Your task to perform on an android device: Open Yahoo.com Image 0: 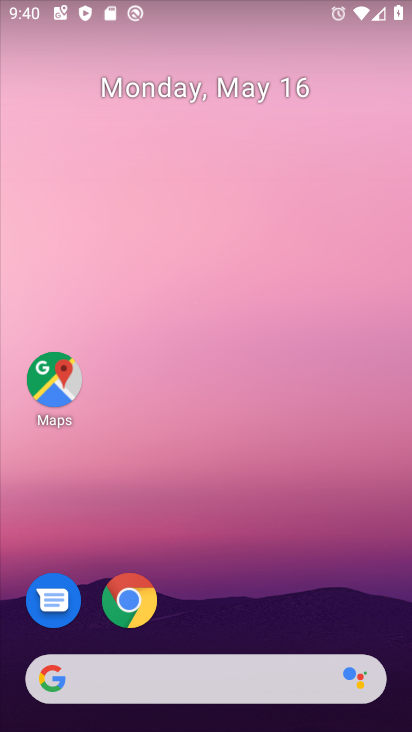
Step 0: drag from (181, 647) to (244, 150)
Your task to perform on an android device: Open Yahoo.com Image 1: 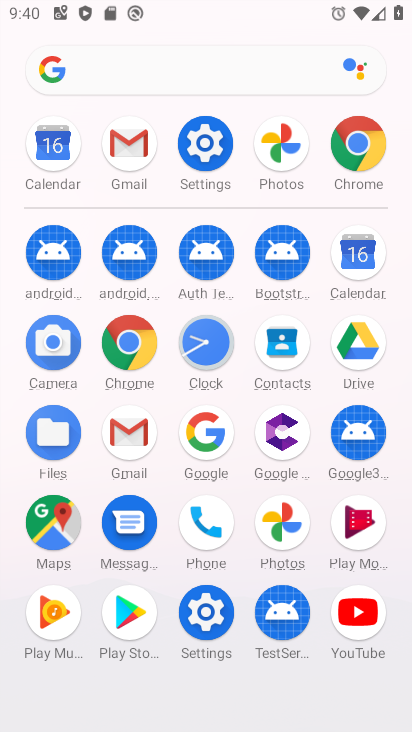
Step 1: click (182, 73)
Your task to perform on an android device: Open Yahoo.com Image 2: 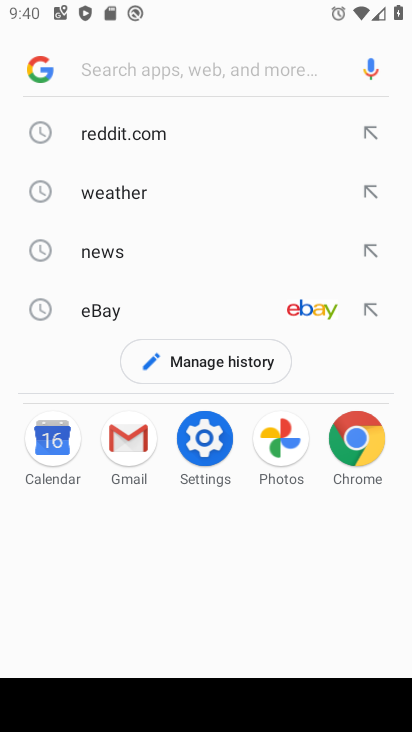
Step 2: type "yahoo.com"
Your task to perform on an android device: Open Yahoo.com Image 3: 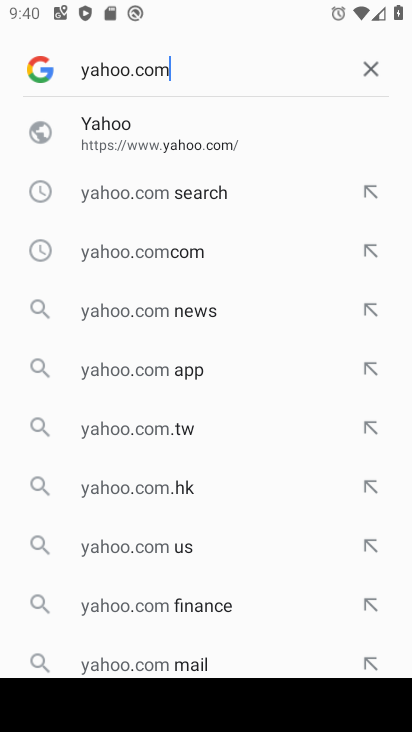
Step 3: click (178, 127)
Your task to perform on an android device: Open Yahoo.com Image 4: 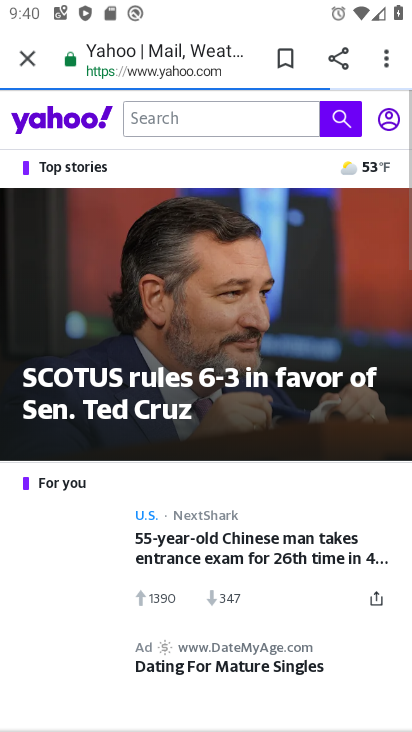
Step 4: drag from (199, 610) to (280, 283)
Your task to perform on an android device: Open Yahoo.com Image 5: 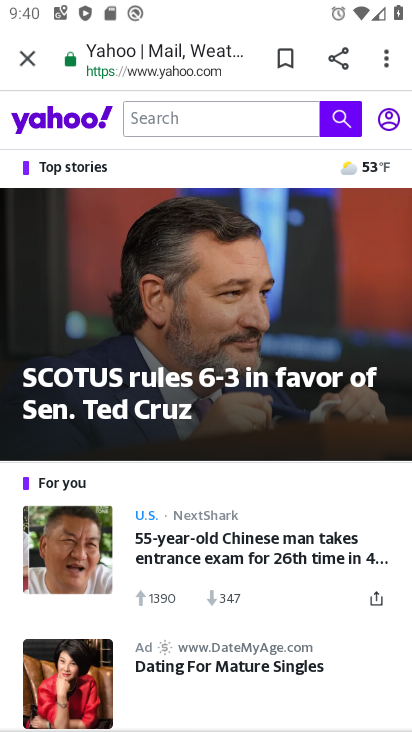
Step 5: click (299, 285)
Your task to perform on an android device: Open Yahoo.com Image 6: 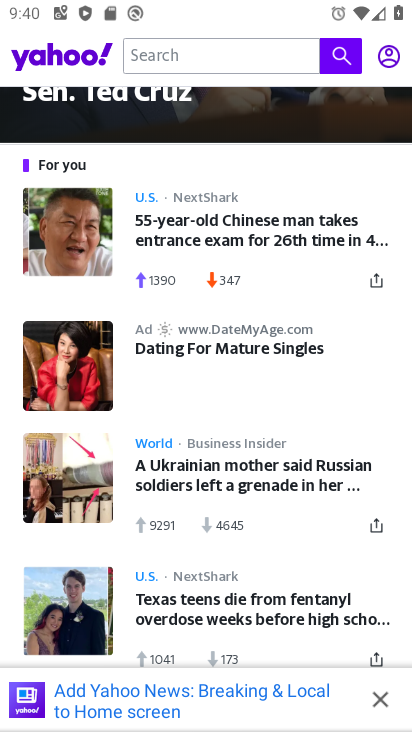
Step 6: task complete